Your task to perform on an android device: delete a single message in the gmail app Image 0: 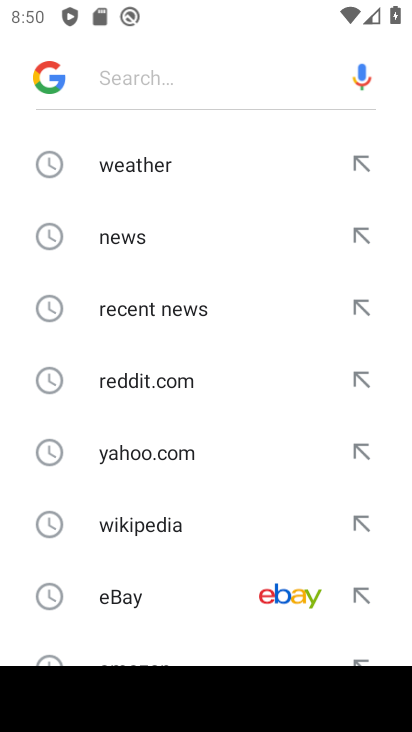
Step 0: press back button
Your task to perform on an android device: delete a single message in the gmail app Image 1: 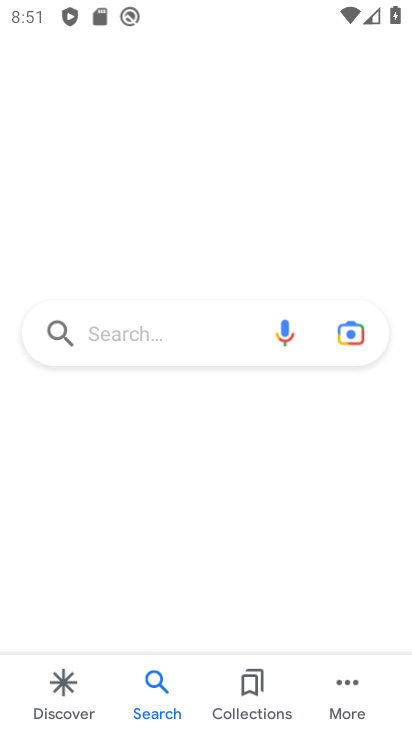
Step 1: press back button
Your task to perform on an android device: delete a single message in the gmail app Image 2: 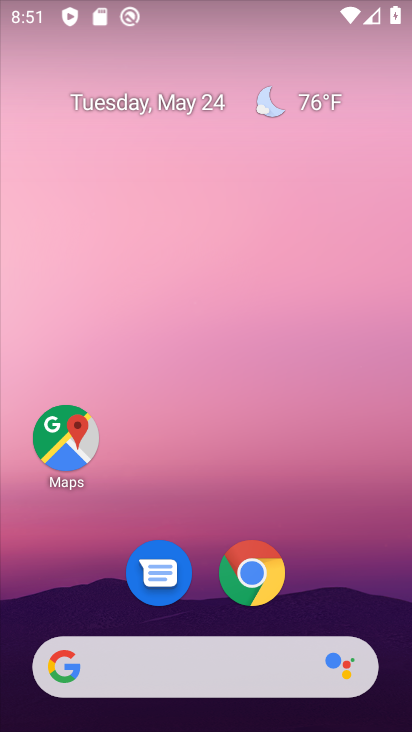
Step 2: drag from (68, 628) to (181, 101)
Your task to perform on an android device: delete a single message in the gmail app Image 3: 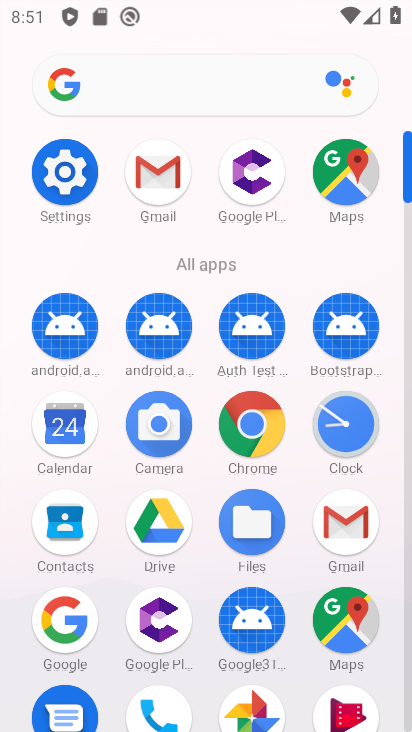
Step 3: click (329, 527)
Your task to perform on an android device: delete a single message in the gmail app Image 4: 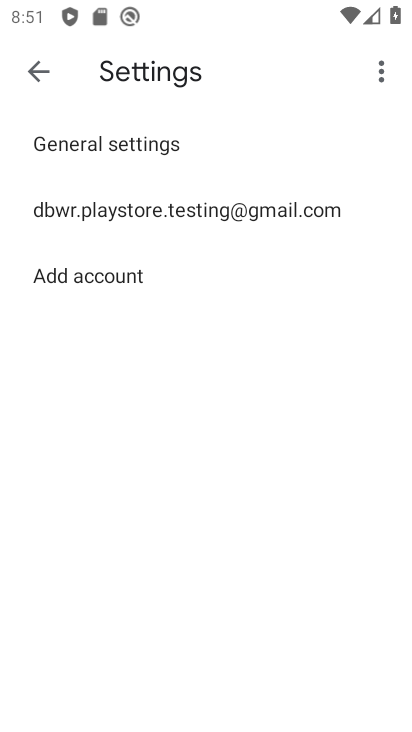
Step 4: press back button
Your task to perform on an android device: delete a single message in the gmail app Image 5: 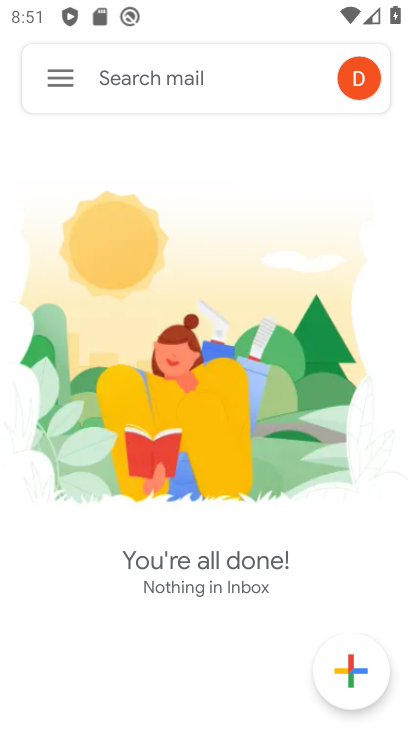
Step 5: click (69, 76)
Your task to perform on an android device: delete a single message in the gmail app Image 6: 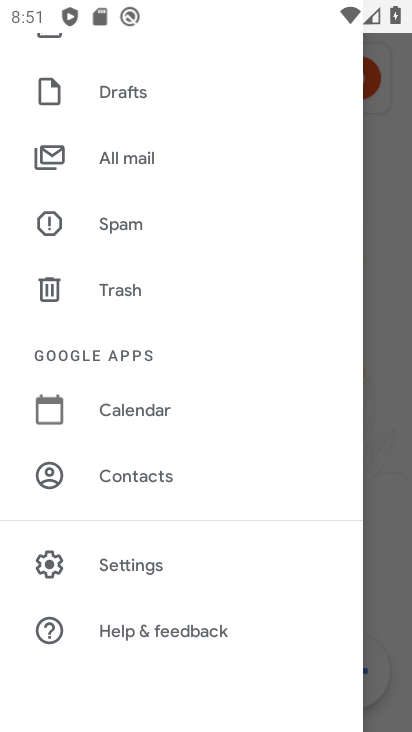
Step 6: click (220, 166)
Your task to perform on an android device: delete a single message in the gmail app Image 7: 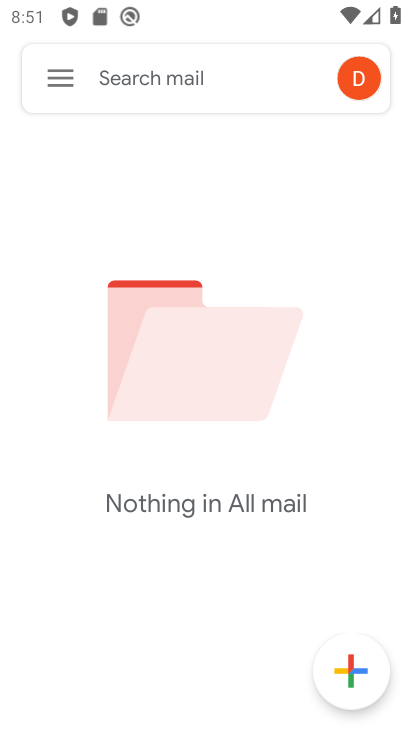
Step 7: task complete